Your task to perform on an android device: Go to battery settings Image 0: 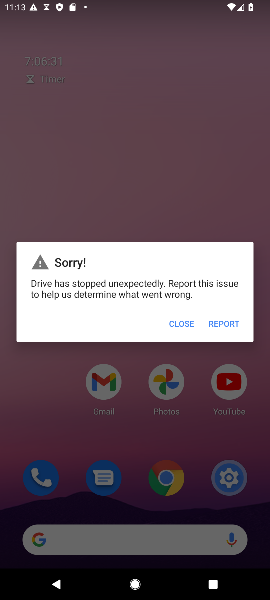
Step 0: click (184, 329)
Your task to perform on an android device: Go to battery settings Image 1: 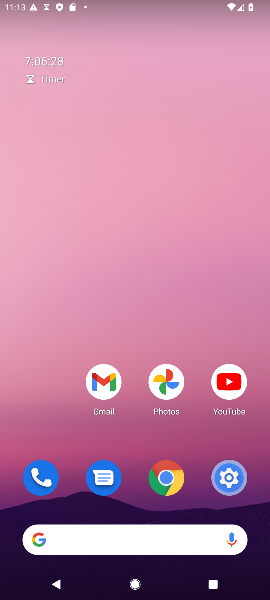
Step 1: click (229, 482)
Your task to perform on an android device: Go to battery settings Image 2: 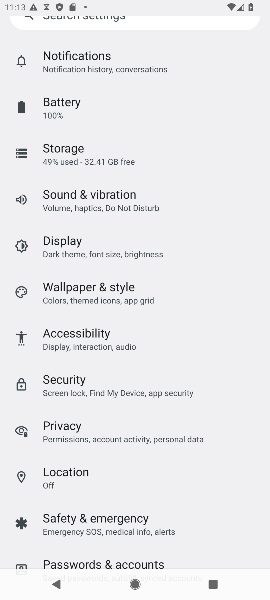
Step 2: drag from (150, 496) to (122, 437)
Your task to perform on an android device: Go to battery settings Image 3: 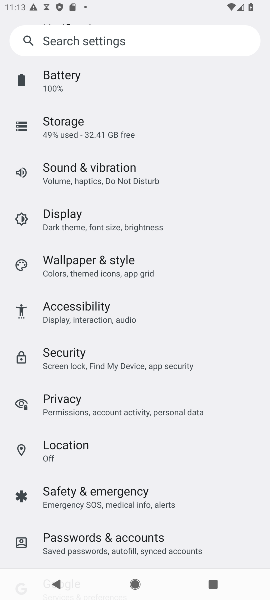
Step 3: click (53, 83)
Your task to perform on an android device: Go to battery settings Image 4: 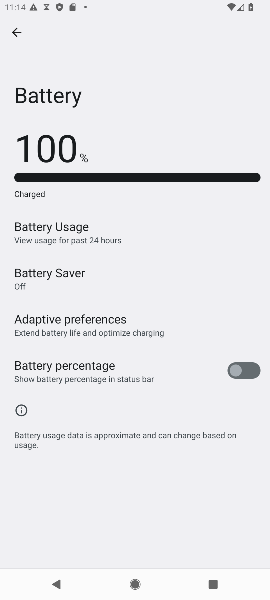
Step 4: task complete